Your task to perform on an android device: Show me popular games on the Play Store Image 0: 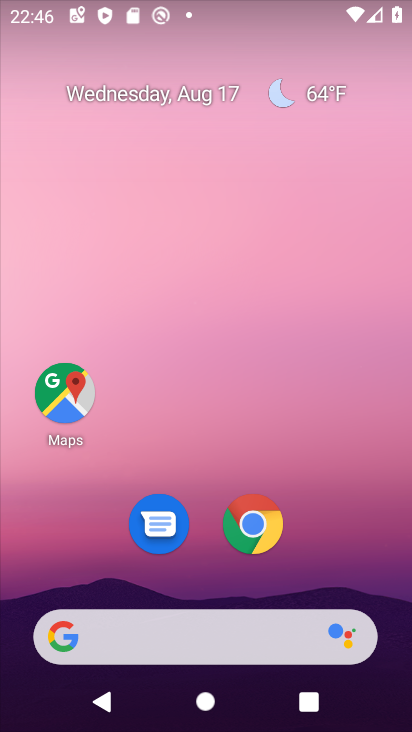
Step 0: drag from (337, 551) to (349, 0)
Your task to perform on an android device: Show me popular games on the Play Store Image 1: 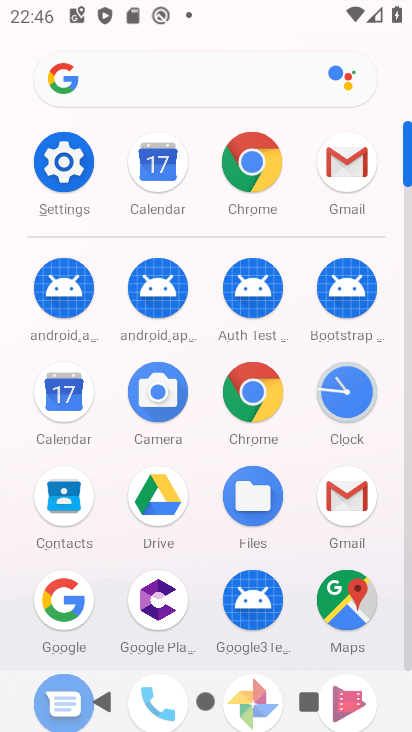
Step 1: drag from (114, 524) to (115, 312)
Your task to perform on an android device: Show me popular games on the Play Store Image 2: 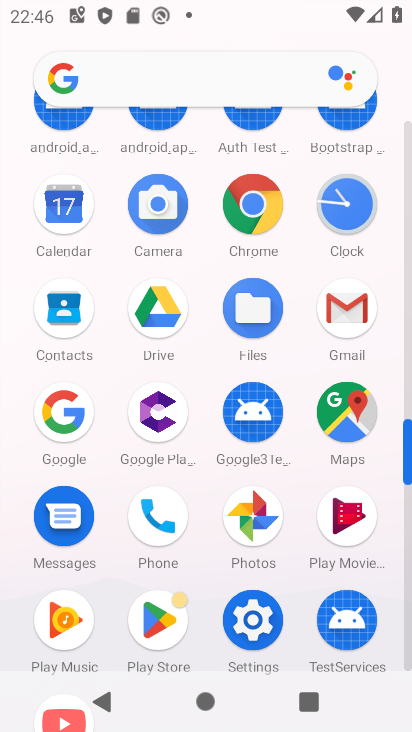
Step 2: click (162, 610)
Your task to perform on an android device: Show me popular games on the Play Store Image 3: 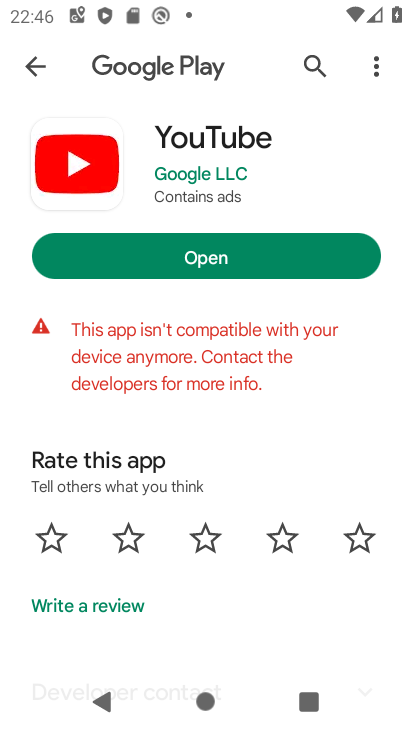
Step 3: click (46, 64)
Your task to perform on an android device: Show me popular games on the Play Store Image 4: 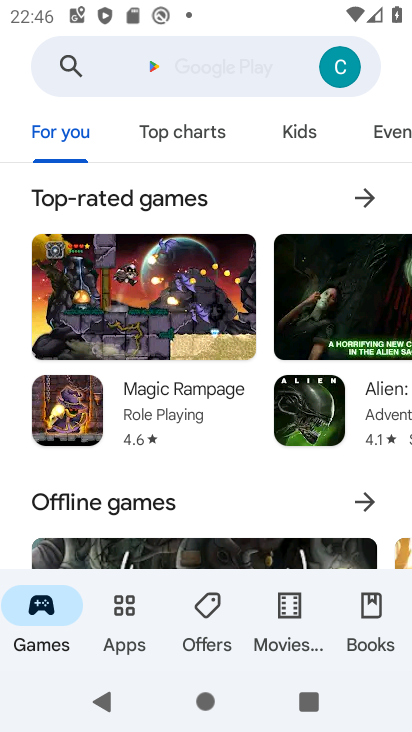
Step 4: click (52, 614)
Your task to perform on an android device: Show me popular games on the Play Store Image 5: 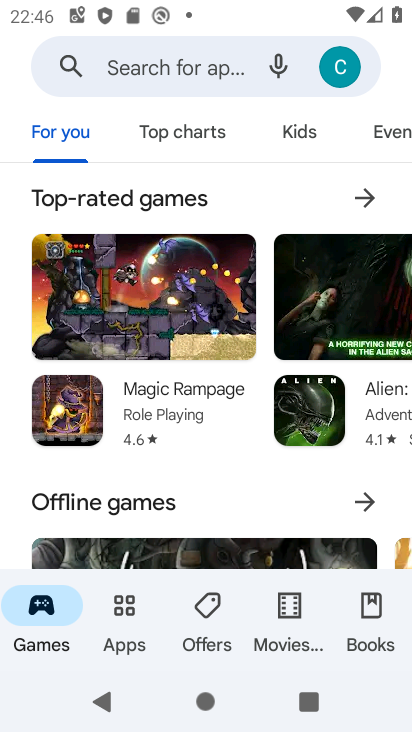
Step 5: drag from (242, 419) to (272, 88)
Your task to perform on an android device: Show me popular games on the Play Store Image 6: 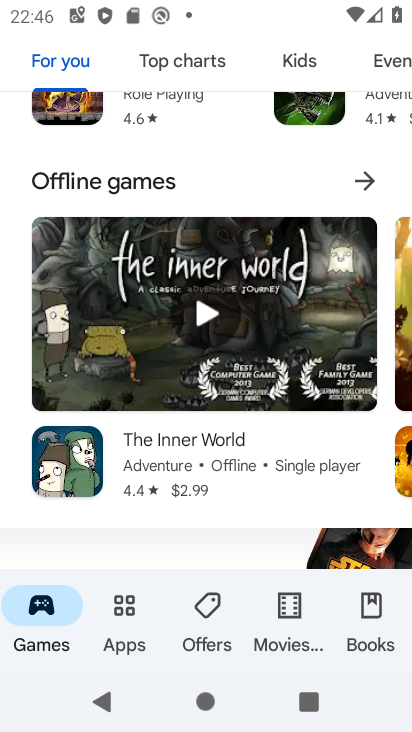
Step 6: drag from (260, 435) to (274, 57)
Your task to perform on an android device: Show me popular games on the Play Store Image 7: 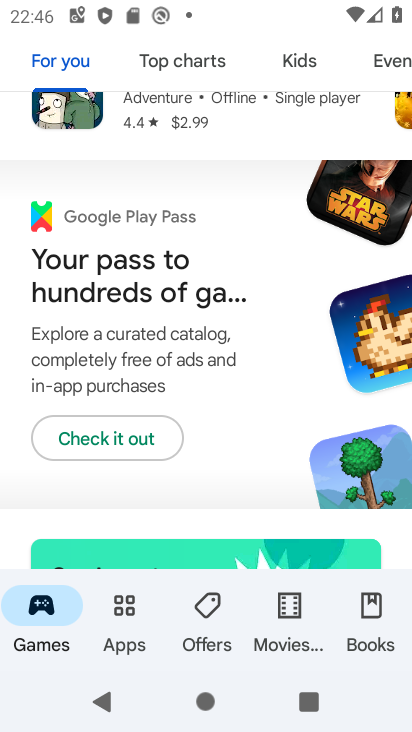
Step 7: drag from (245, 223) to (261, 608)
Your task to perform on an android device: Show me popular games on the Play Store Image 8: 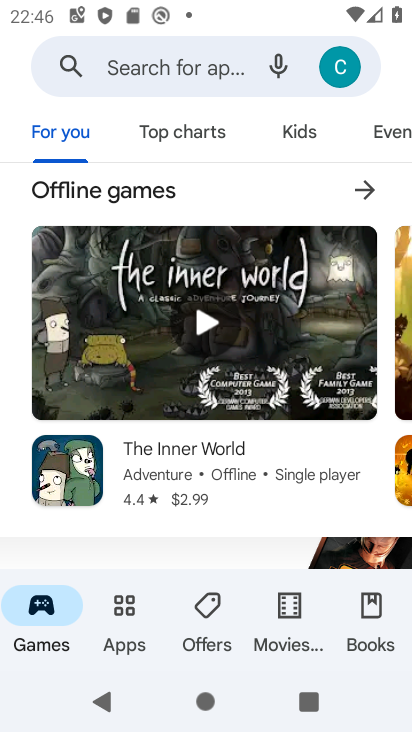
Step 8: drag from (245, 397) to (237, 607)
Your task to perform on an android device: Show me popular games on the Play Store Image 9: 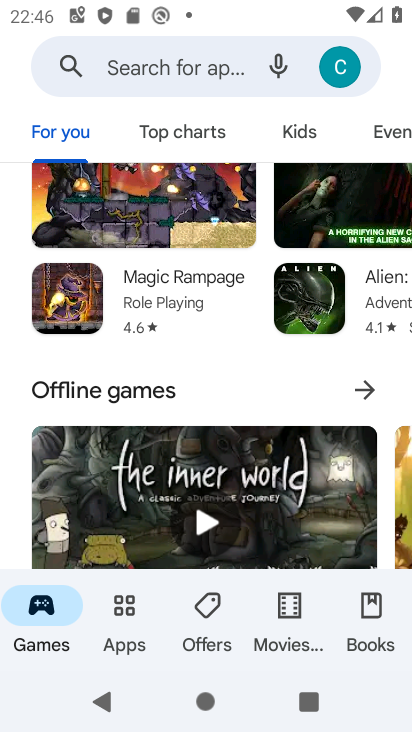
Step 9: drag from (262, 335) to (273, 578)
Your task to perform on an android device: Show me popular games on the Play Store Image 10: 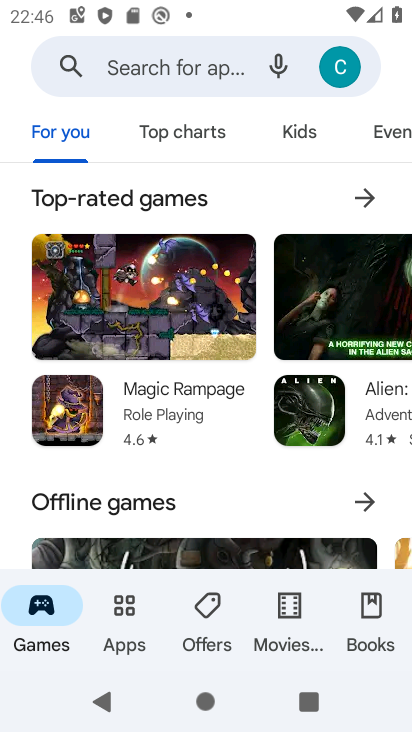
Step 10: drag from (236, 305) to (237, 524)
Your task to perform on an android device: Show me popular games on the Play Store Image 11: 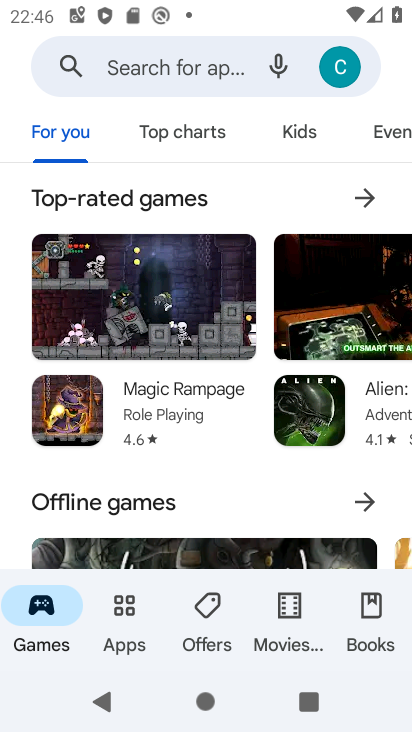
Step 11: click (362, 183)
Your task to perform on an android device: Show me popular games on the Play Store Image 12: 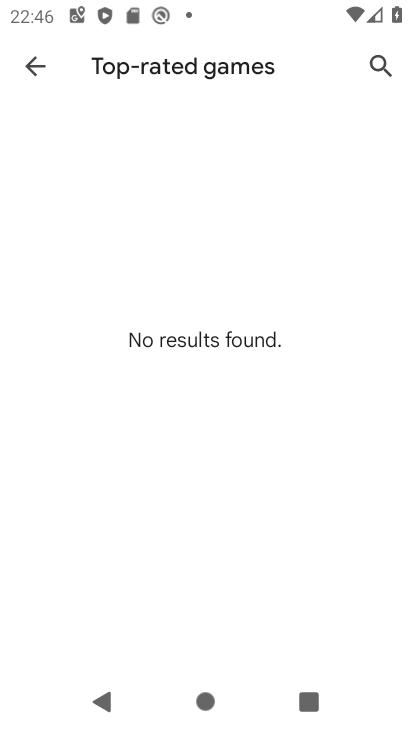
Step 12: click (44, 65)
Your task to perform on an android device: Show me popular games on the Play Store Image 13: 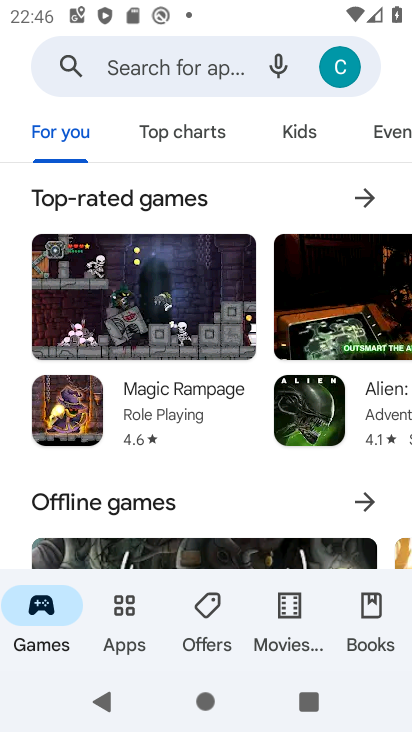
Step 13: click (194, 129)
Your task to perform on an android device: Show me popular games on the Play Store Image 14: 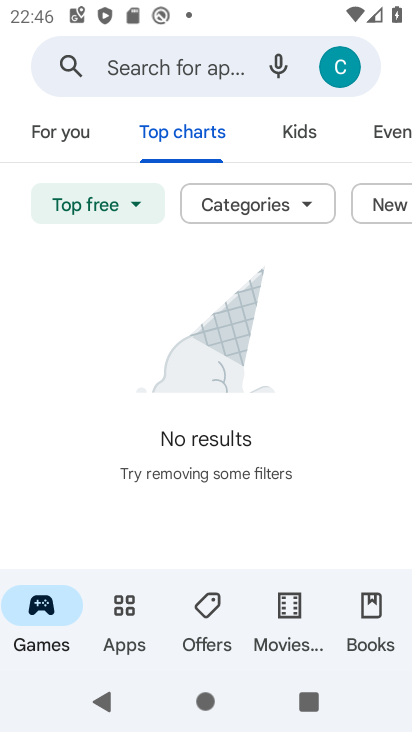
Step 14: click (62, 131)
Your task to perform on an android device: Show me popular games on the Play Store Image 15: 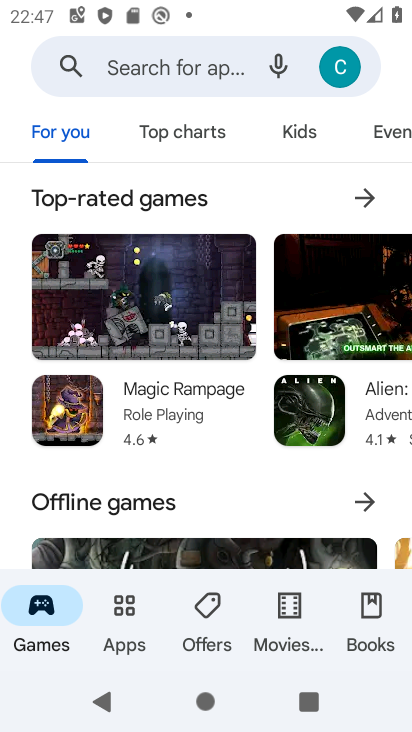
Step 15: click (205, 126)
Your task to perform on an android device: Show me popular games on the Play Store Image 16: 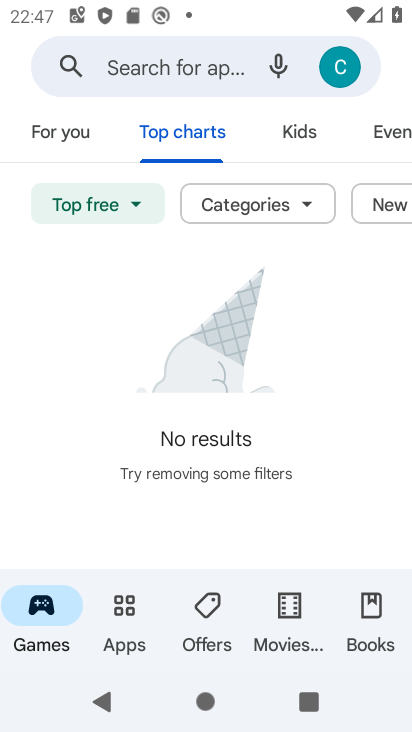
Step 16: click (263, 200)
Your task to perform on an android device: Show me popular games on the Play Store Image 17: 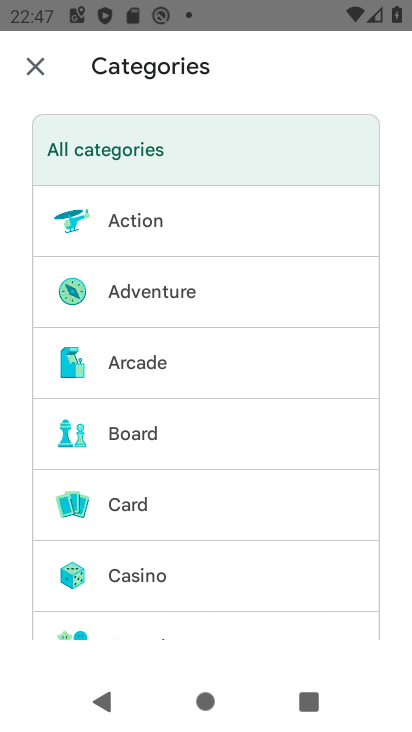
Step 17: click (33, 67)
Your task to perform on an android device: Show me popular games on the Play Store Image 18: 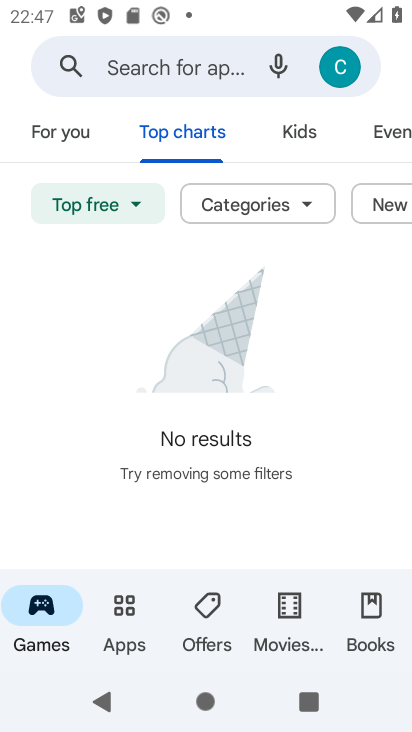
Step 18: click (75, 129)
Your task to perform on an android device: Show me popular games on the Play Store Image 19: 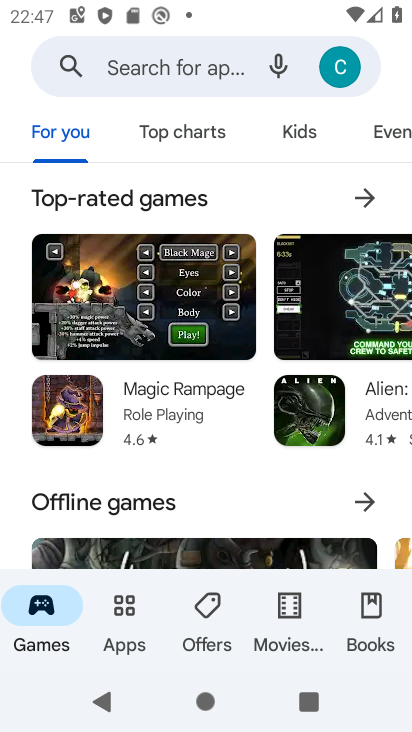
Step 19: click (171, 309)
Your task to perform on an android device: Show me popular games on the Play Store Image 20: 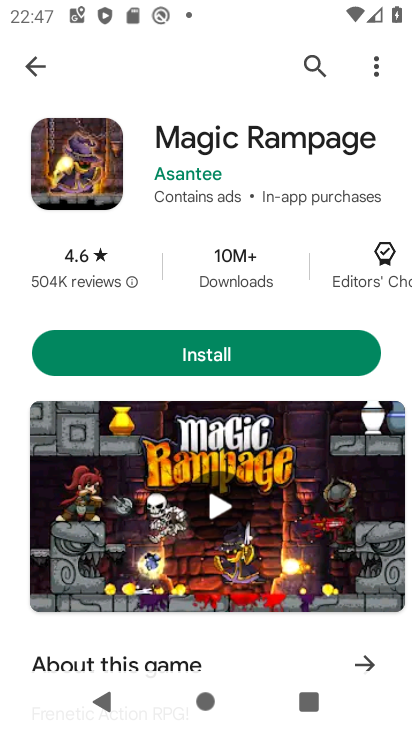
Step 20: task complete